Your task to perform on an android device: move a message to another label in the gmail app Image 0: 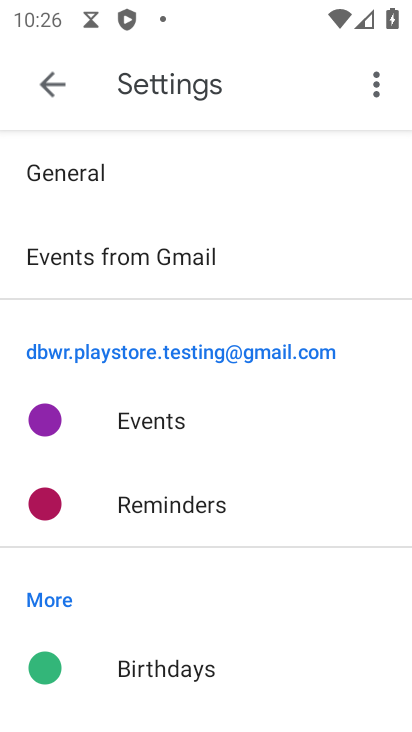
Step 0: press home button
Your task to perform on an android device: move a message to another label in the gmail app Image 1: 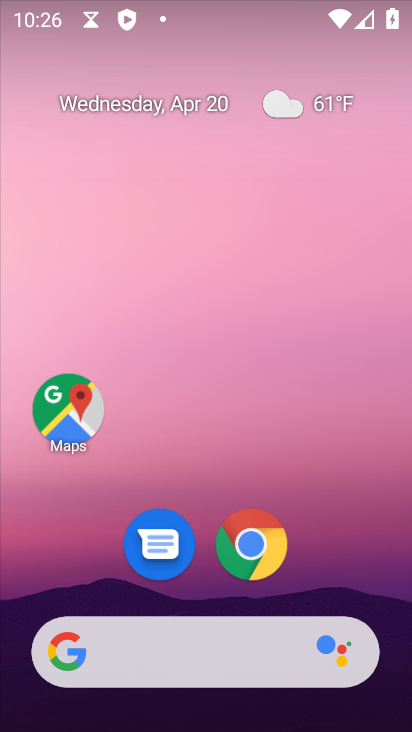
Step 1: drag from (195, 648) to (380, 0)
Your task to perform on an android device: move a message to another label in the gmail app Image 2: 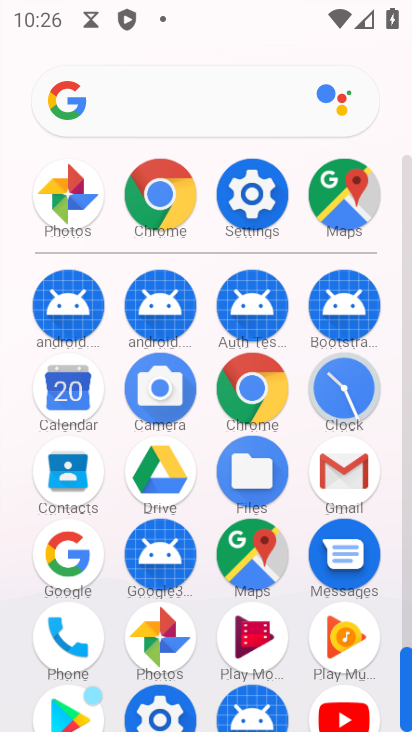
Step 2: click (337, 476)
Your task to perform on an android device: move a message to another label in the gmail app Image 3: 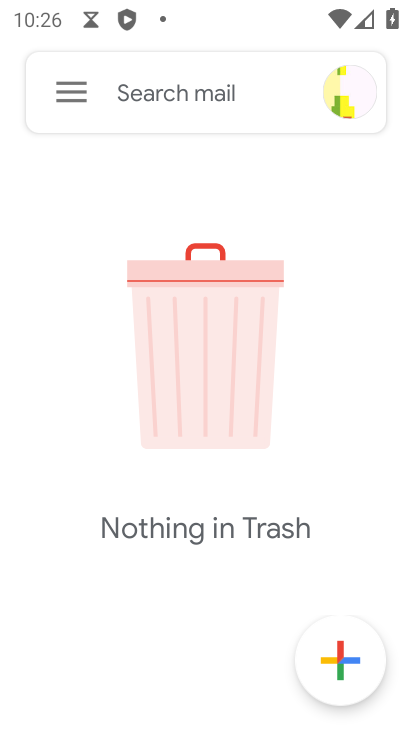
Step 3: click (81, 90)
Your task to perform on an android device: move a message to another label in the gmail app Image 4: 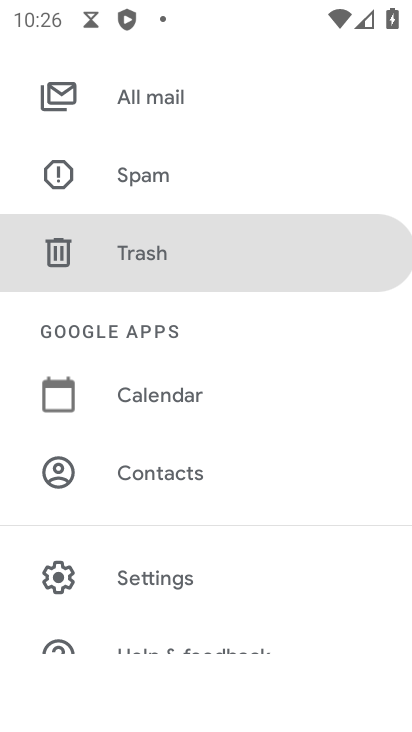
Step 4: click (170, 85)
Your task to perform on an android device: move a message to another label in the gmail app Image 5: 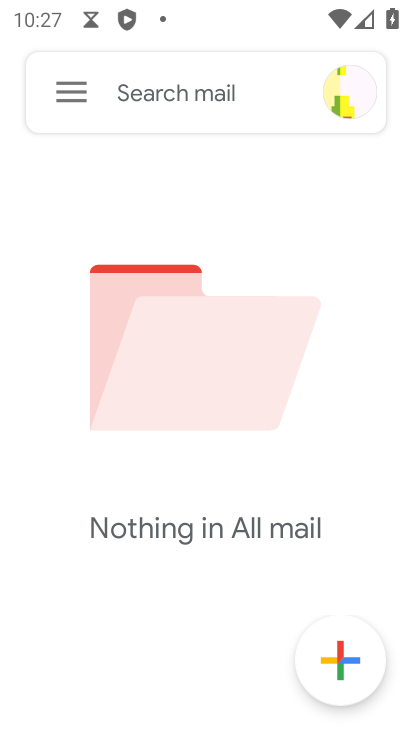
Step 5: task complete